Your task to perform on an android device: empty trash in google photos Image 0: 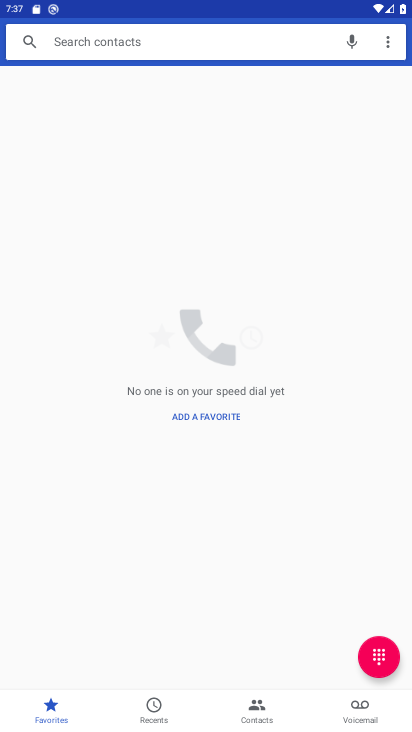
Step 0: press home button
Your task to perform on an android device: empty trash in google photos Image 1: 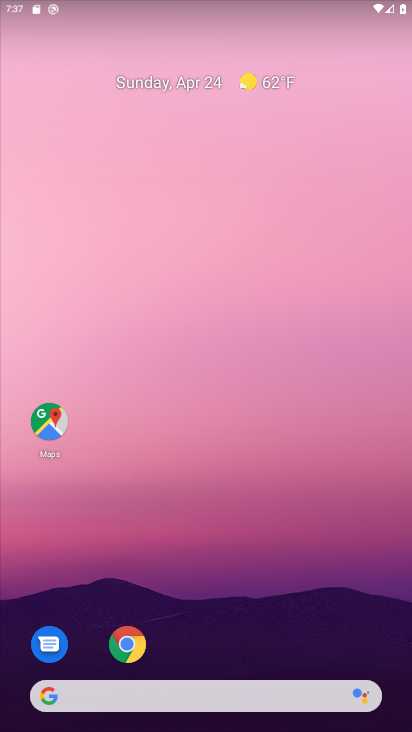
Step 1: drag from (205, 654) to (205, 85)
Your task to perform on an android device: empty trash in google photos Image 2: 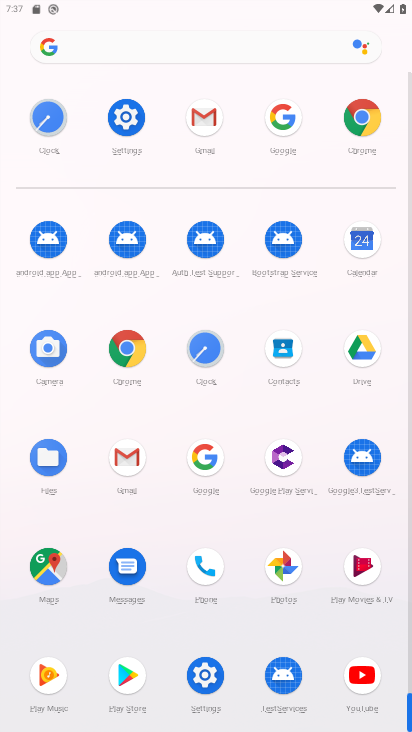
Step 2: click (284, 561)
Your task to perform on an android device: empty trash in google photos Image 3: 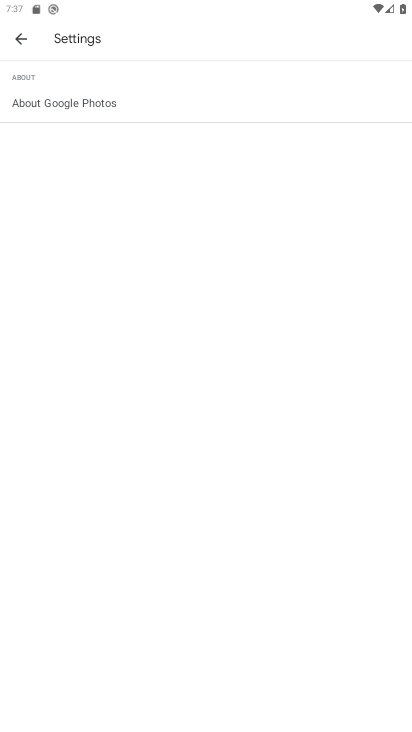
Step 3: click (23, 40)
Your task to perform on an android device: empty trash in google photos Image 4: 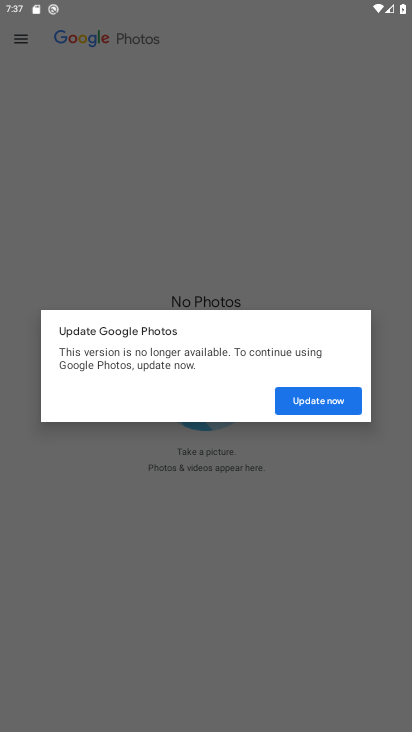
Step 4: click (313, 398)
Your task to perform on an android device: empty trash in google photos Image 5: 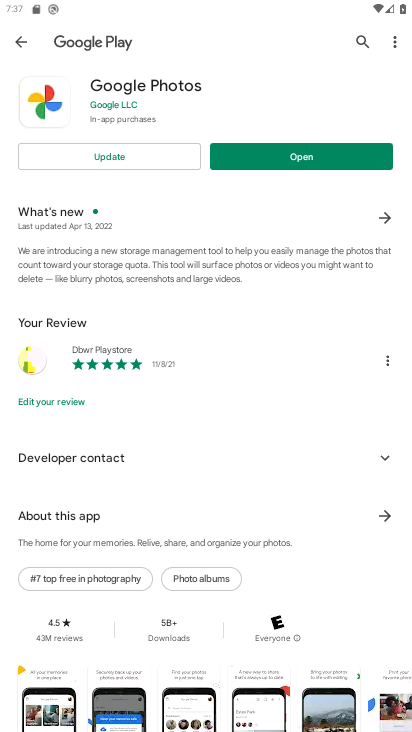
Step 5: click (150, 159)
Your task to perform on an android device: empty trash in google photos Image 6: 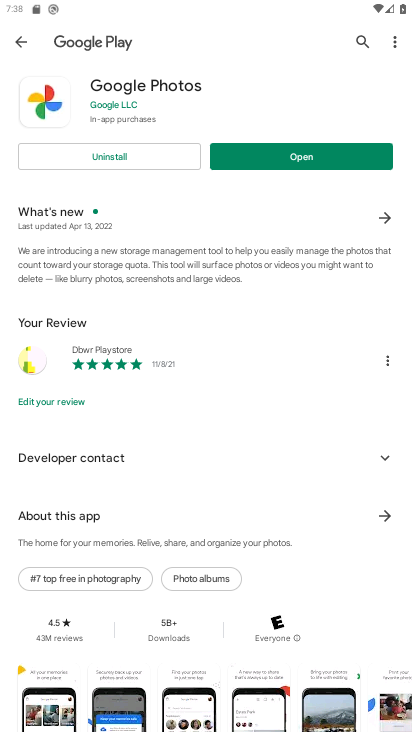
Step 6: click (308, 156)
Your task to perform on an android device: empty trash in google photos Image 7: 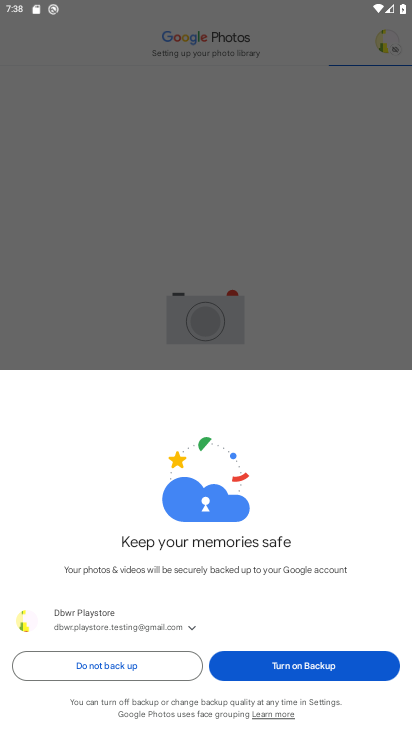
Step 7: click (283, 667)
Your task to perform on an android device: empty trash in google photos Image 8: 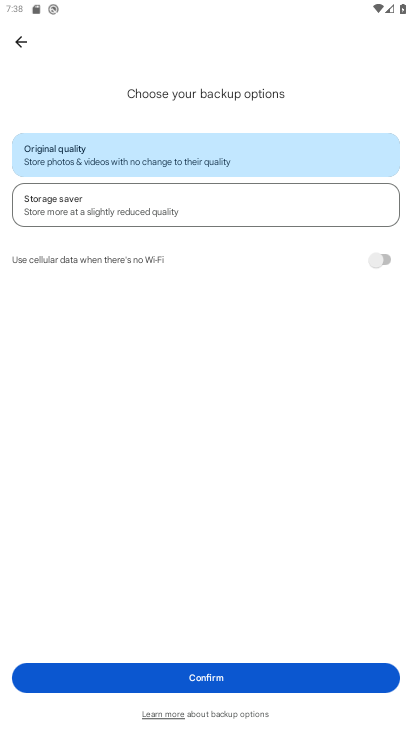
Step 8: click (211, 670)
Your task to perform on an android device: empty trash in google photos Image 9: 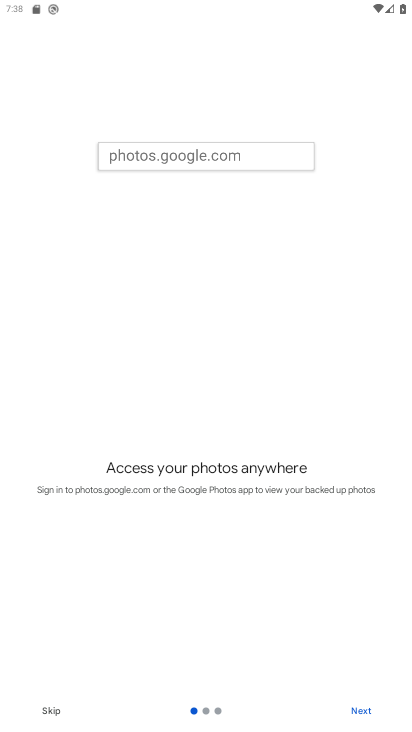
Step 9: click (363, 710)
Your task to perform on an android device: empty trash in google photos Image 10: 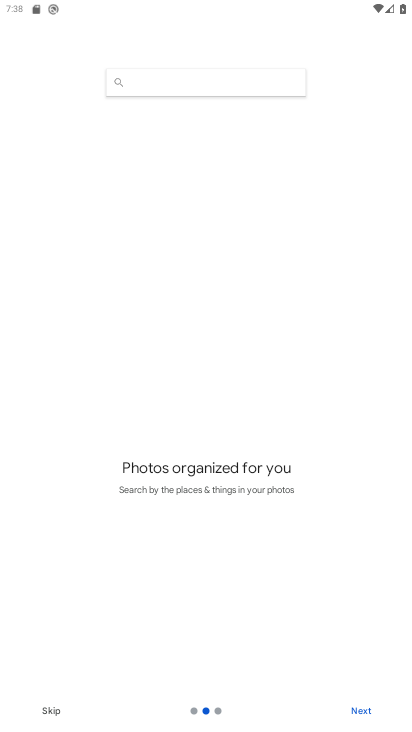
Step 10: click (363, 710)
Your task to perform on an android device: empty trash in google photos Image 11: 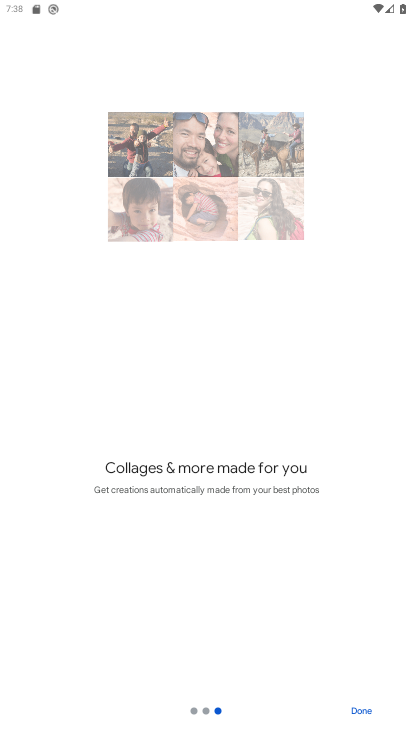
Step 11: click (363, 710)
Your task to perform on an android device: empty trash in google photos Image 12: 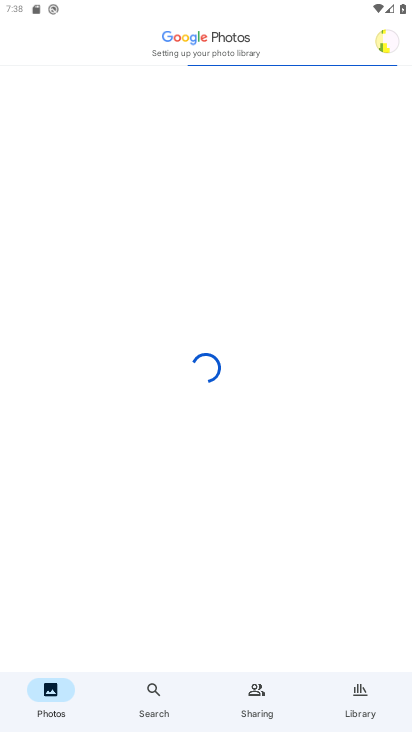
Step 12: click (361, 708)
Your task to perform on an android device: empty trash in google photos Image 13: 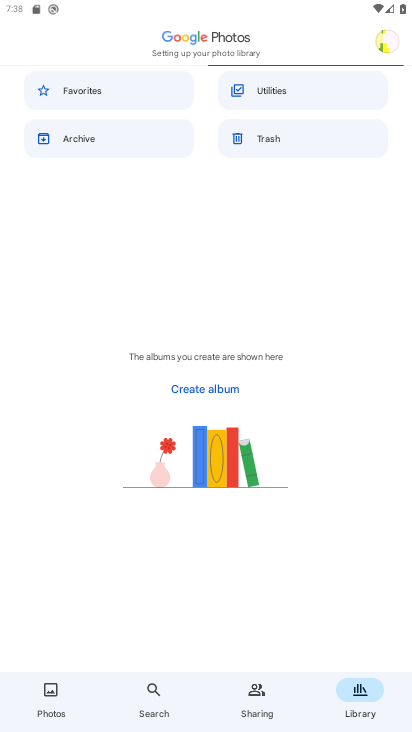
Step 13: click (257, 139)
Your task to perform on an android device: empty trash in google photos Image 14: 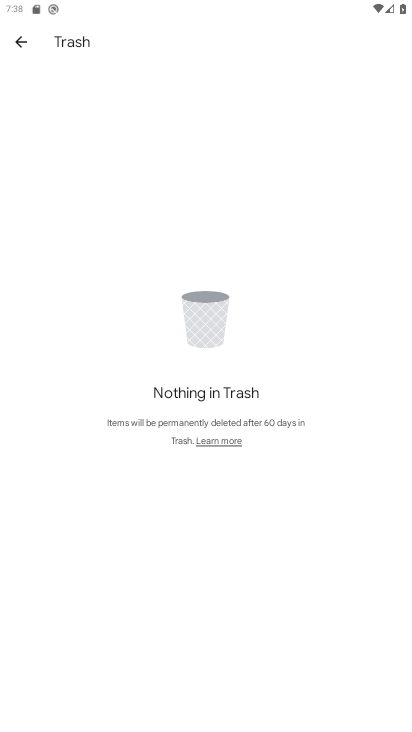
Step 14: task complete